Your task to perform on an android device: toggle location history Image 0: 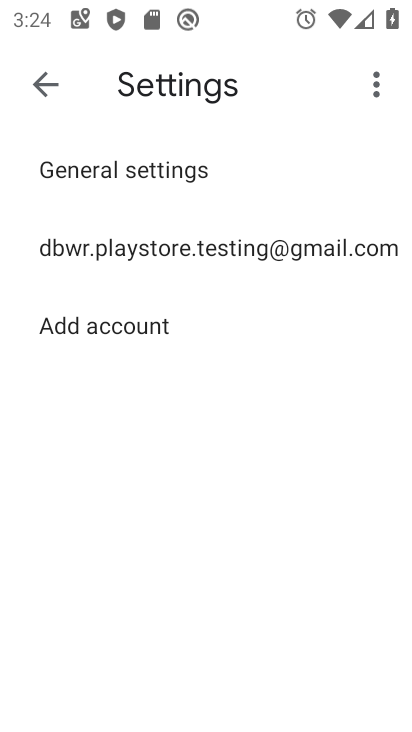
Step 0: press home button
Your task to perform on an android device: toggle location history Image 1: 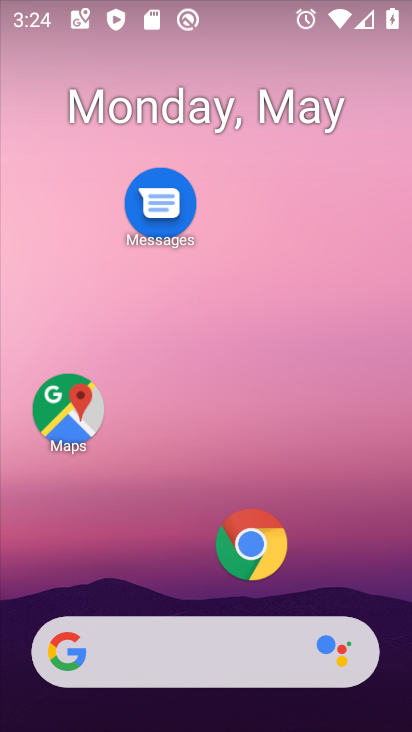
Step 1: drag from (196, 537) to (193, 201)
Your task to perform on an android device: toggle location history Image 2: 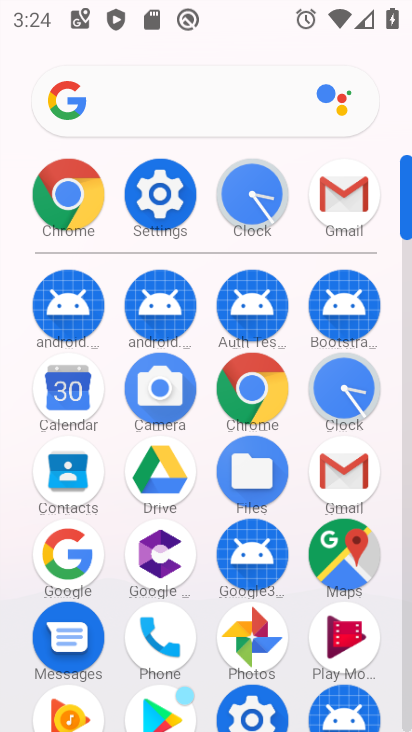
Step 2: click (151, 189)
Your task to perform on an android device: toggle location history Image 3: 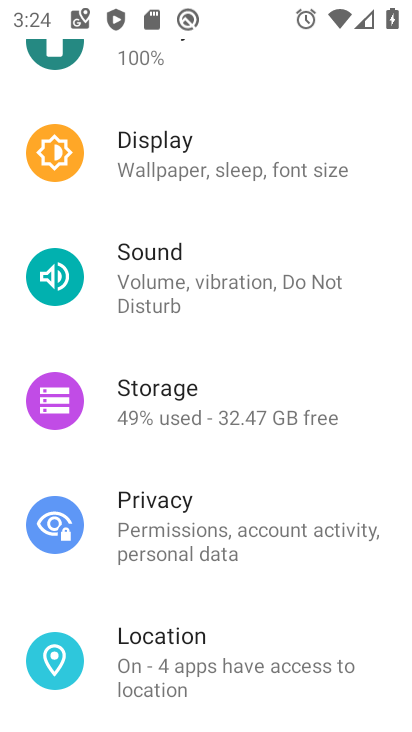
Step 3: click (231, 650)
Your task to perform on an android device: toggle location history Image 4: 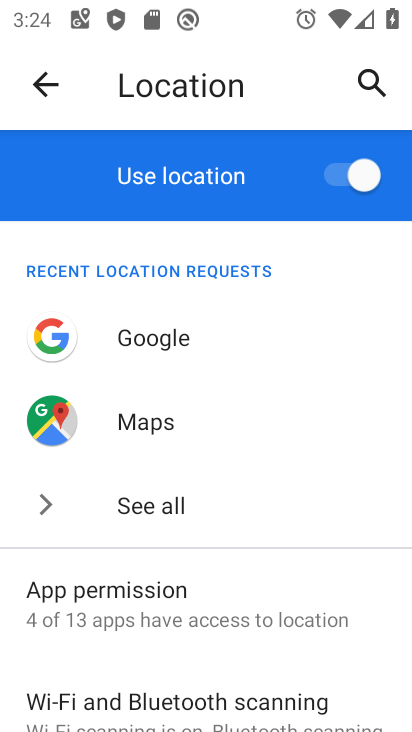
Step 4: drag from (235, 642) to (216, 400)
Your task to perform on an android device: toggle location history Image 5: 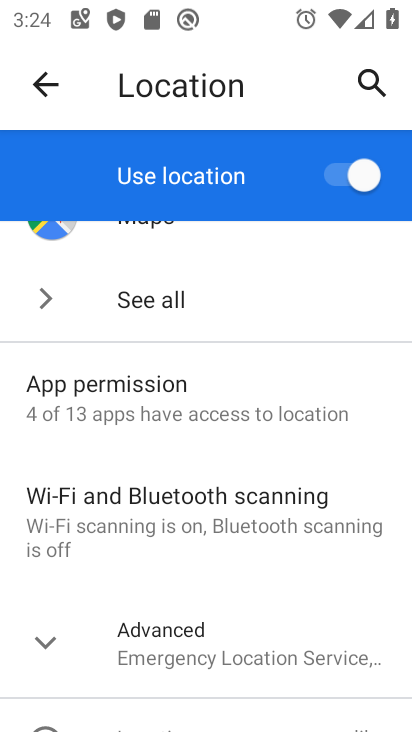
Step 5: click (239, 657)
Your task to perform on an android device: toggle location history Image 6: 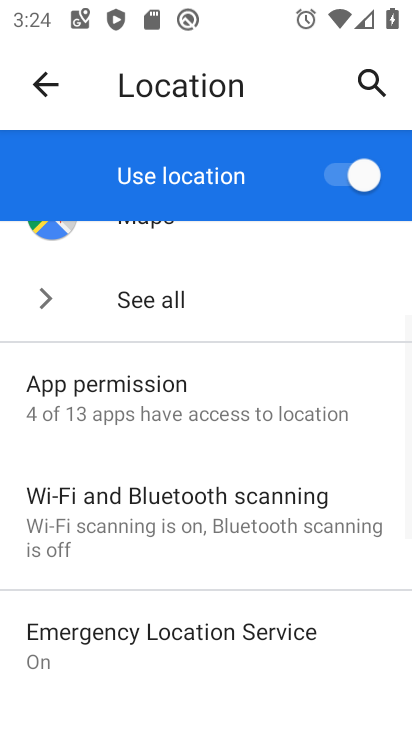
Step 6: drag from (236, 645) to (239, 316)
Your task to perform on an android device: toggle location history Image 7: 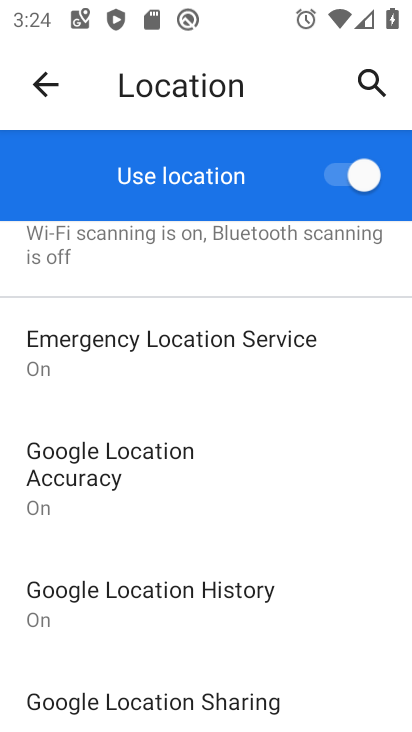
Step 7: click (250, 575)
Your task to perform on an android device: toggle location history Image 8: 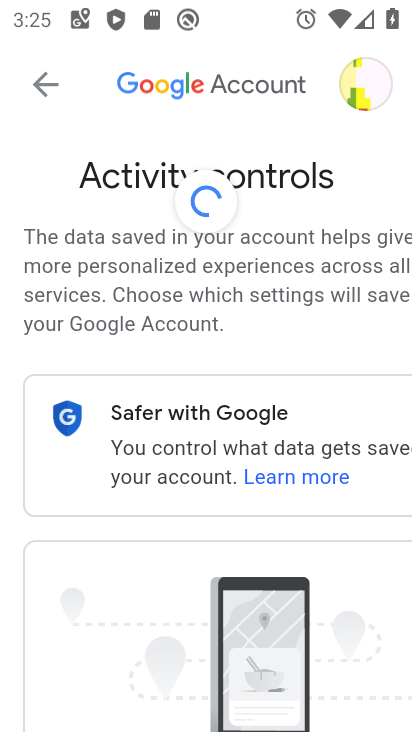
Step 8: drag from (240, 542) to (219, 272)
Your task to perform on an android device: toggle location history Image 9: 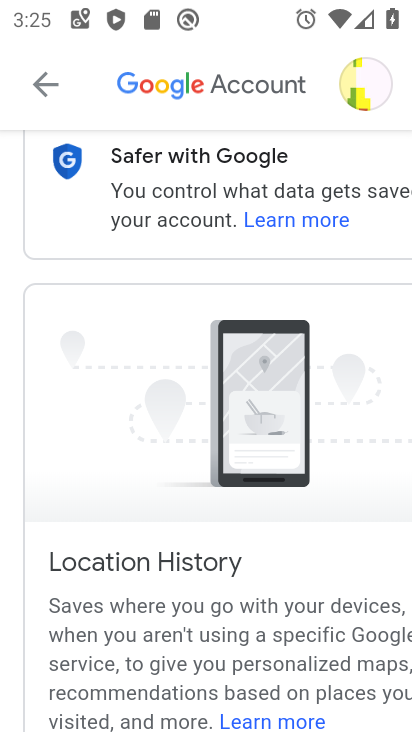
Step 9: drag from (218, 593) to (196, 385)
Your task to perform on an android device: toggle location history Image 10: 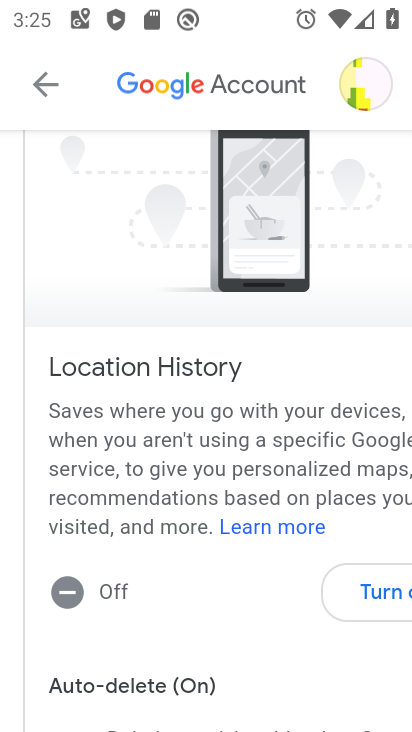
Step 10: click (355, 582)
Your task to perform on an android device: toggle location history Image 11: 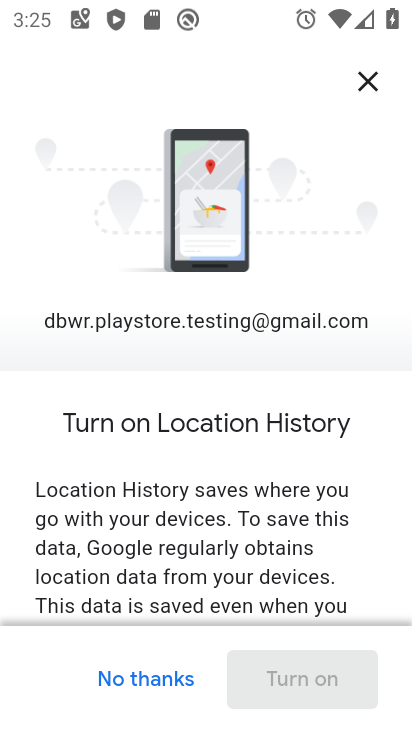
Step 11: drag from (256, 596) to (251, 272)
Your task to perform on an android device: toggle location history Image 12: 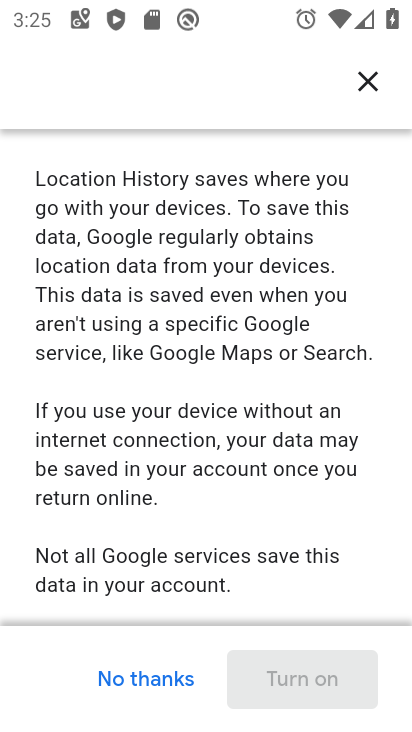
Step 12: drag from (280, 595) to (280, 357)
Your task to perform on an android device: toggle location history Image 13: 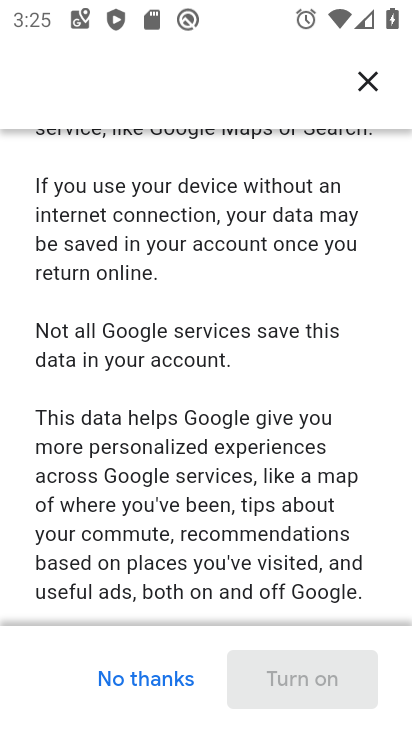
Step 13: drag from (241, 604) to (249, 436)
Your task to perform on an android device: toggle location history Image 14: 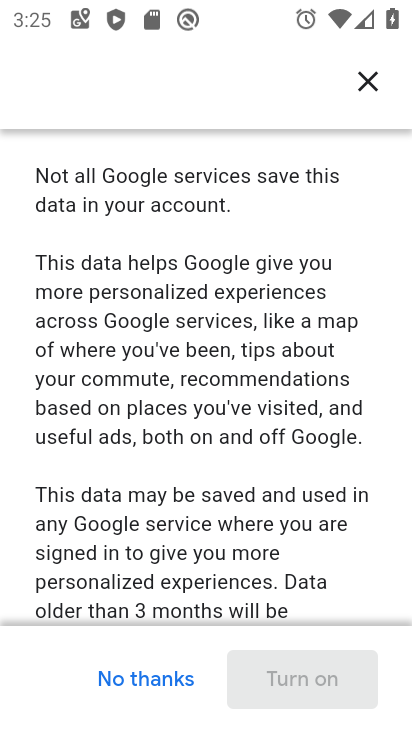
Step 14: drag from (261, 588) to (253, 402)
Your task to perform on an android device: toggle location history Image 15: 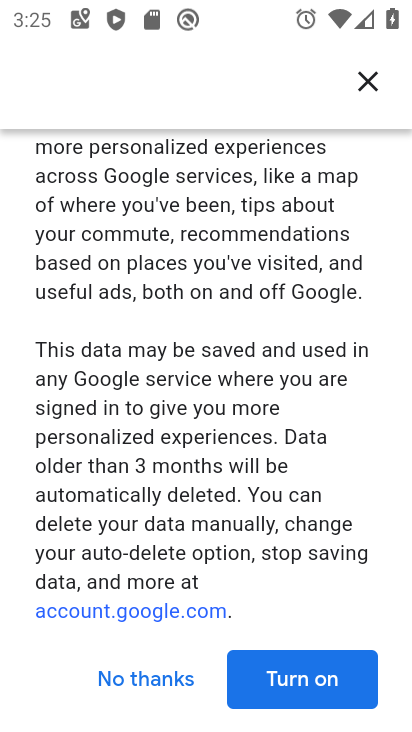
Step 15: drag from (264, 545) to (244, 227)
Your task to perform on an android device: toggle location history Image 16: 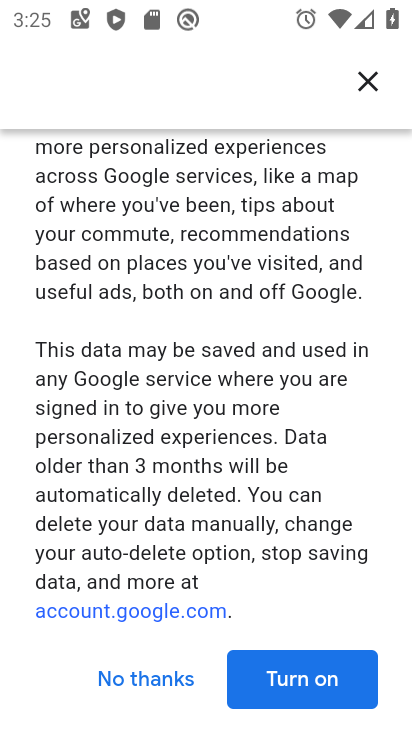
Step 16: click (284, 669)
Your task to perform on an android device: toggle location history Image 17: 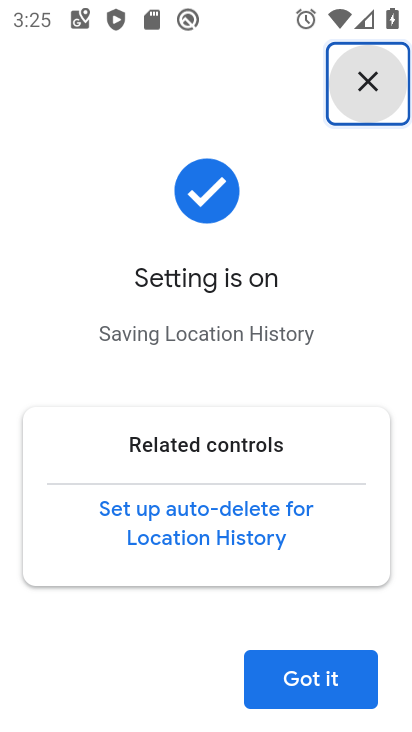
Step 17: task complete